Your task to perform on an android device: Go to Reddit.com Image 0: 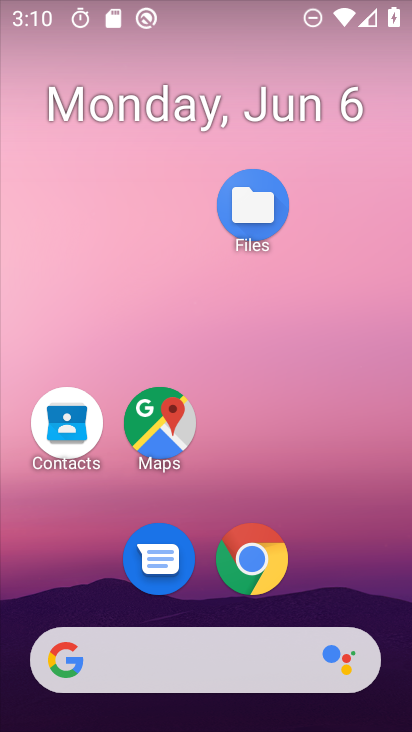
Step 0: drag from (204, 604) to (230, 121)
Your task to perform on an android device: Go to Reddit.com Image 1: 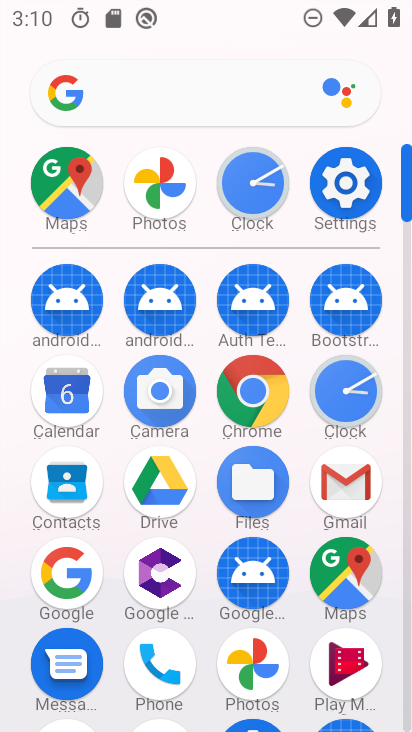
Step 1: click (265, 409)
Your task to perform on an android device: Go to Reddit.com Image 2: 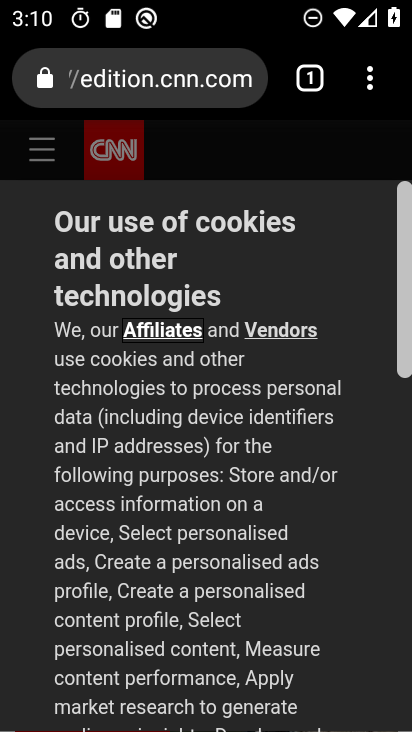
Step 2: click (202, 96)
Your task to perform on an android device: Go to Reddit.com Image 3: 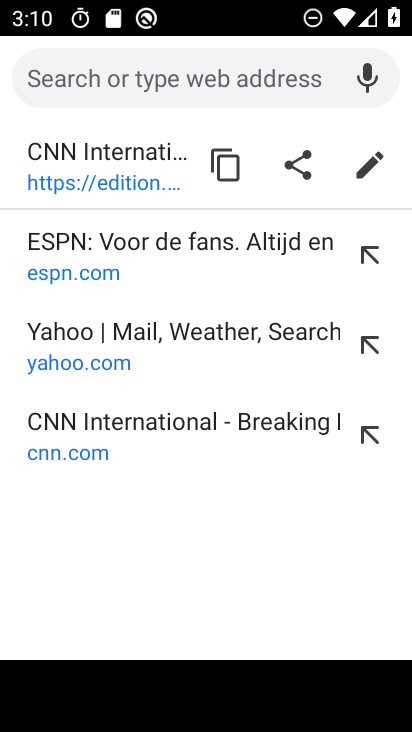
Step 3: type "reddit"
Your task to perform on an android device: Go to Reddit.com Image 4: 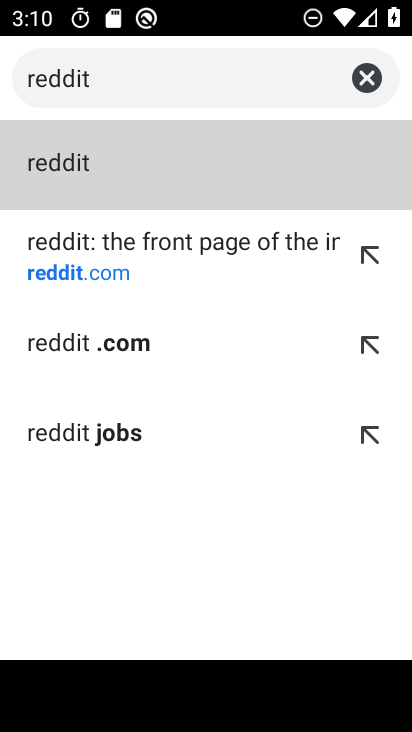
Step 4: click (251, 270)
Your task to perform on an android device: Go to Reddit.com Image 5: 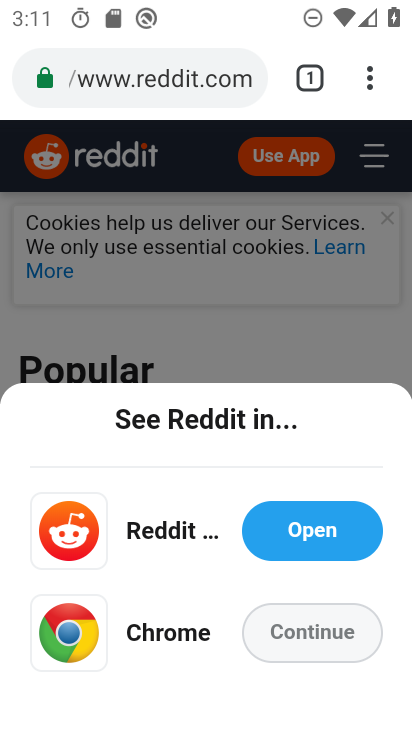
Step 5: task complete